Your task to perform on an android device: When is my next meeting? Image 0: 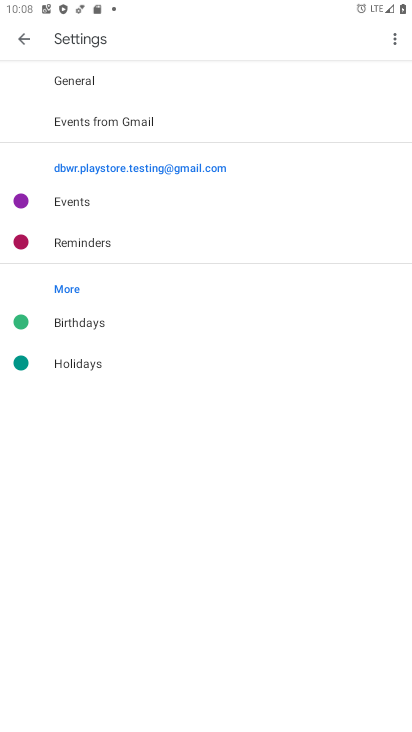
Step 0: press home button
Your task to perform on an android device: When is my next meeting? Image 1: 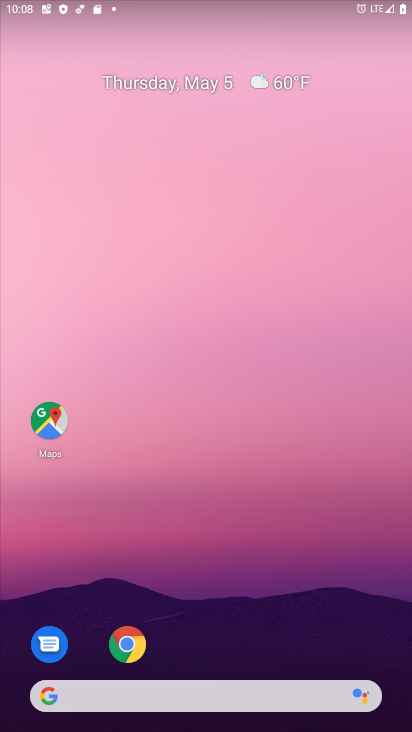
Step 1: drag from (328, 563) to (338, 72)
Your task to perform on an android device: When is my next meeting? Image 2: 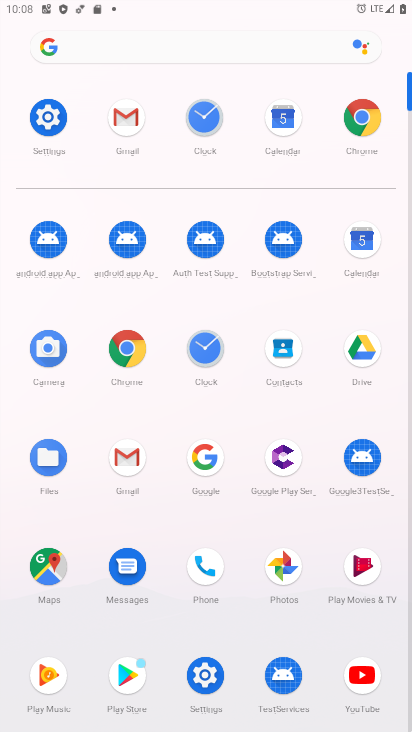
Step 2: click (364, 252)
Your task to perform on an android device: When is my next meeting? Image 3: 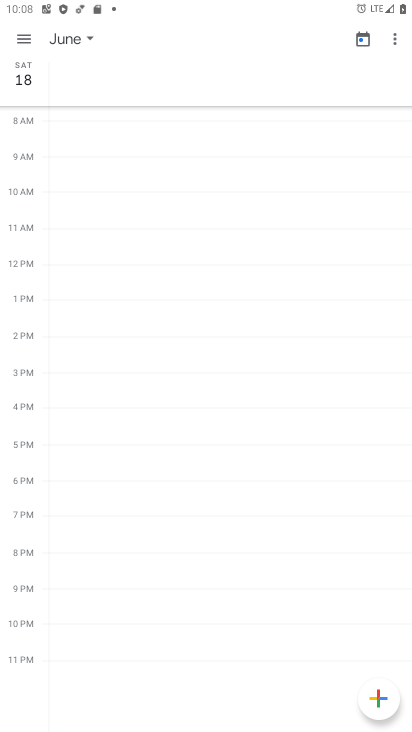
Step 3: click (58, 42)
Your task to perform on an android device: When is my next meeting? Image 4: 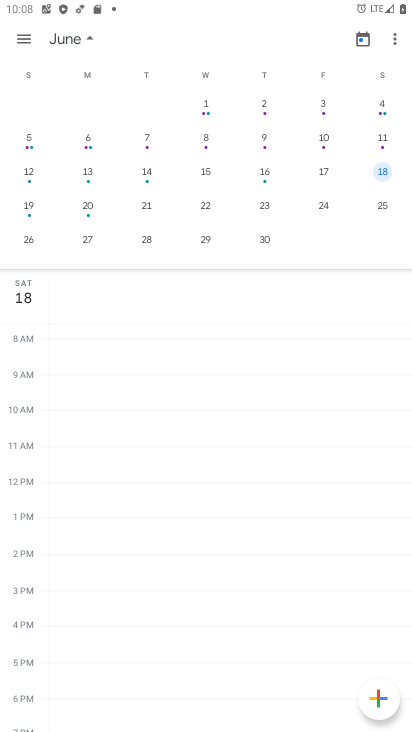
Step 4: drag from (123, 129) to (327, 123)
Your task to perform on an android device: When is my next meeting? Image 5: 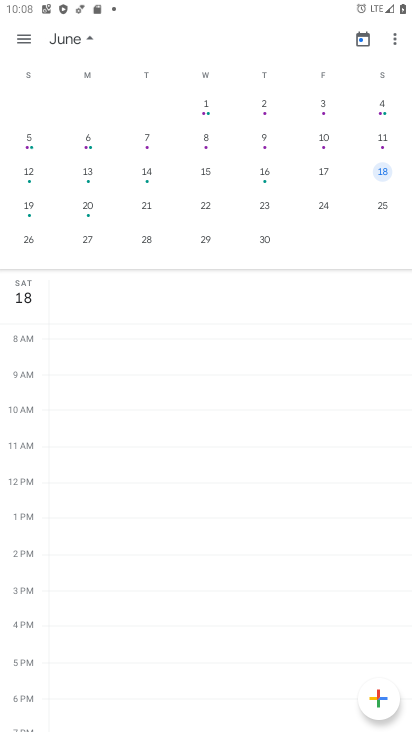
Step 5: click (25, 38)
Your task to perform on an android device: When is my next meeting? Image 6: 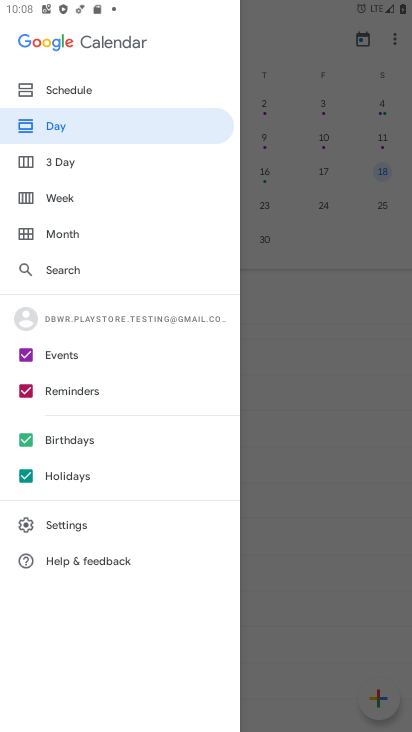
Step 6: click (123, 235)
Your task to perform on an android device: When is my next meeting? Image 7: 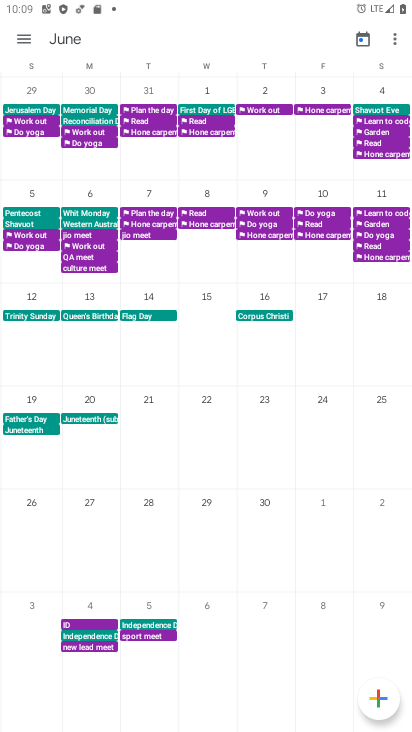
Step 7: drag from (86, 210) to (320, 221)
Your task to perform on an android device: When is my next meeting? Image 8: 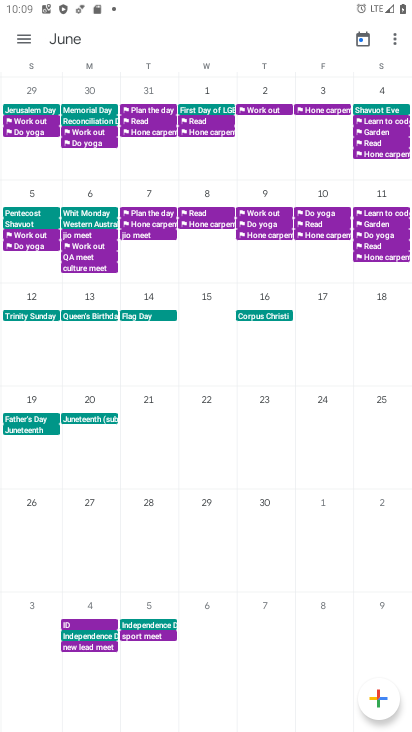
Step 8: click (27, 35)
Your task to perform on an android device: When is my next meeting? Image 9: 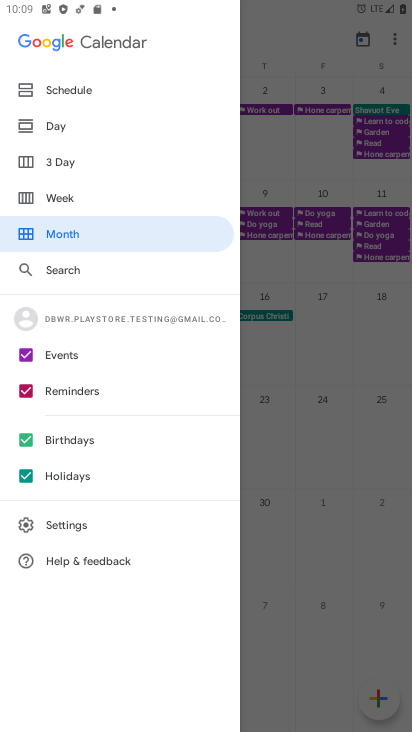
Step 9: click (87, 89)
Your task to perform on an android device: When is my next meeting? Image 10: 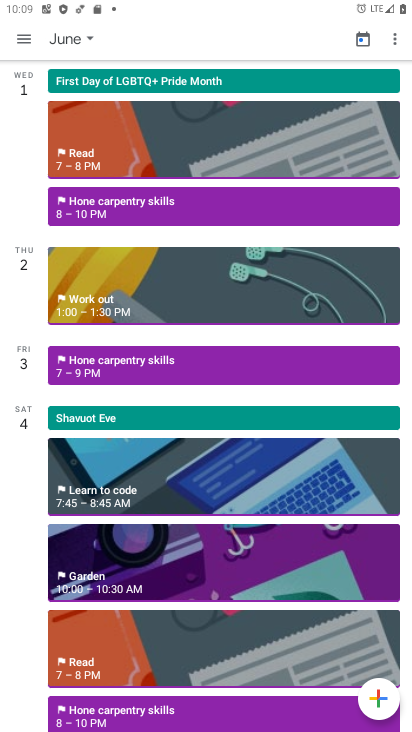
Step 10: click (79, 32)
Your task to perform on an android device: When is my next meeting? Image 11: 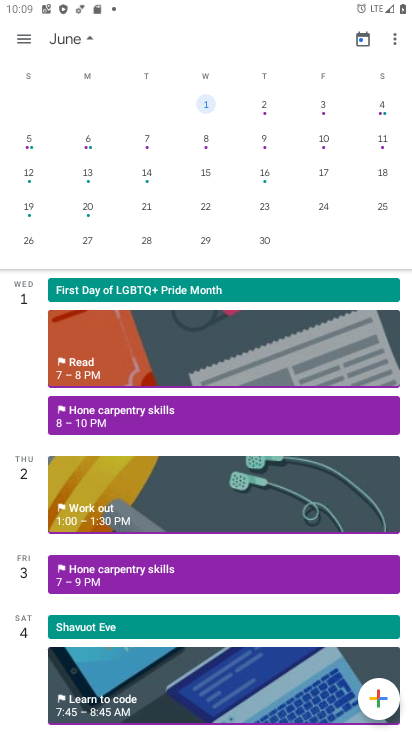
Step 11: drag from (87, 158) to (288, 161)
Your task to perform on an android device: When is my next meeting? Image 12: 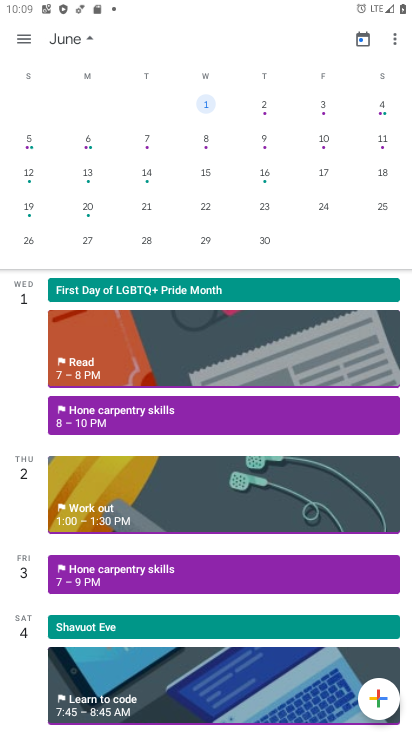
Step 12: drag from (32, 189) to (391, 230)
Your task to perform on an android device: When is my next meeting? Image 13: 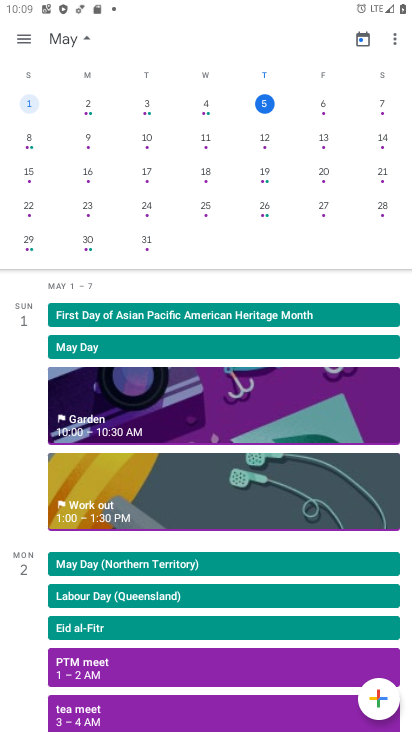
Step 13: click (315, 104)
Your task to perform on an android device: When is my next meeting? Image 14: 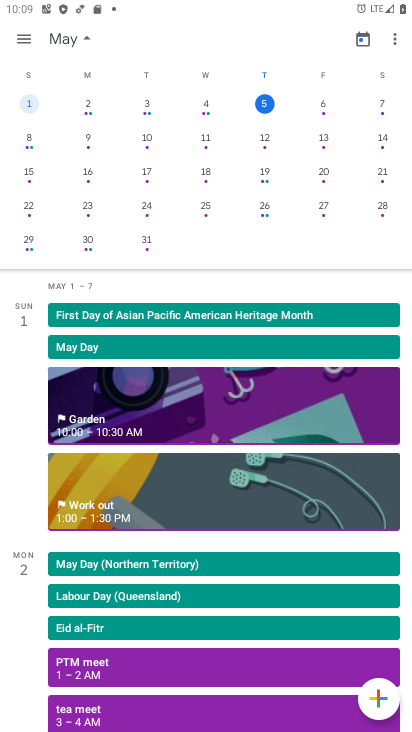
Step 14: click (330, 105)
Your task to perform on an android device: When is my next meeting? Image 15: 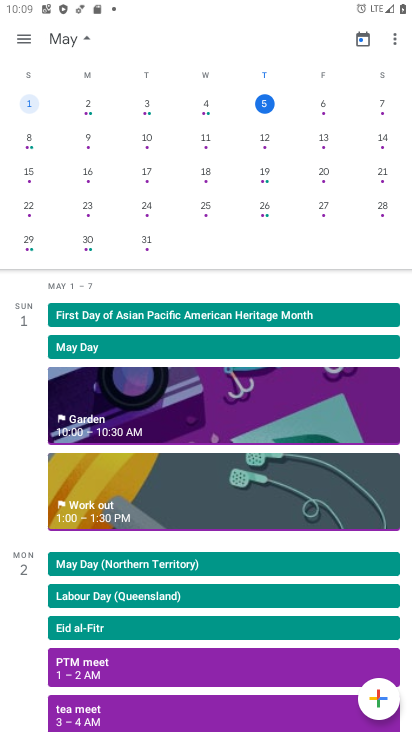
Step 15: click (324, 111)
Your task to perform on an android device: When is my next meeting? Image 16: 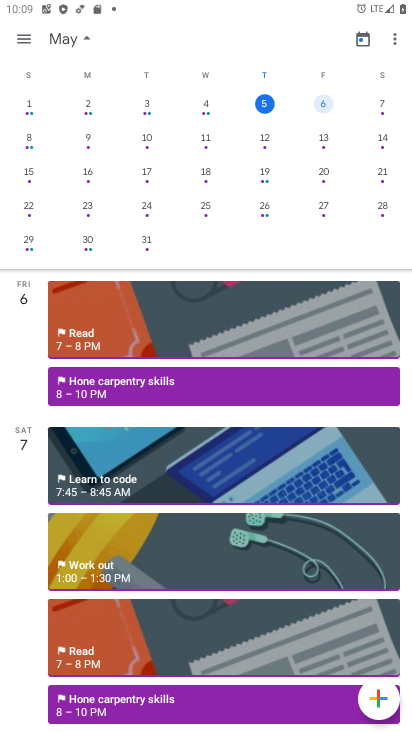
Step 16: click (388, 102)
Your task to perform on an android device: When is my next meeting? Image 17: 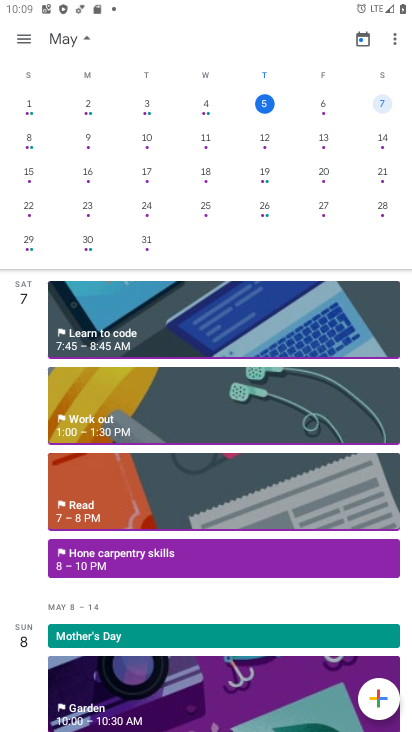
Step 17: click (37, 147)
Your task to perform on an android device: When is my next meeting? Image 18: 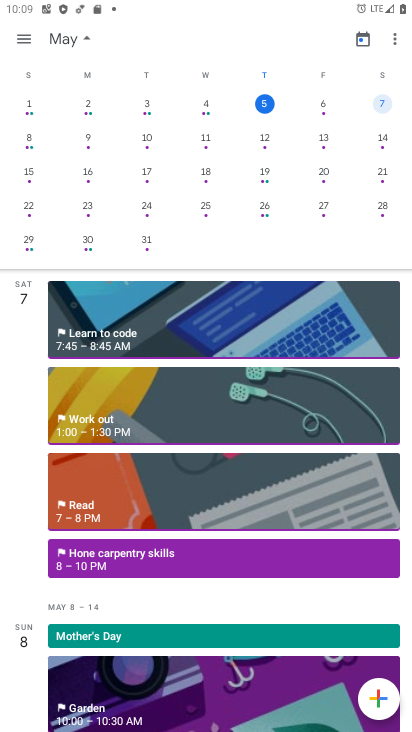
Step 18: click (94, 143)
Your task to perform on an android device: When is my next meeting? Image 19: 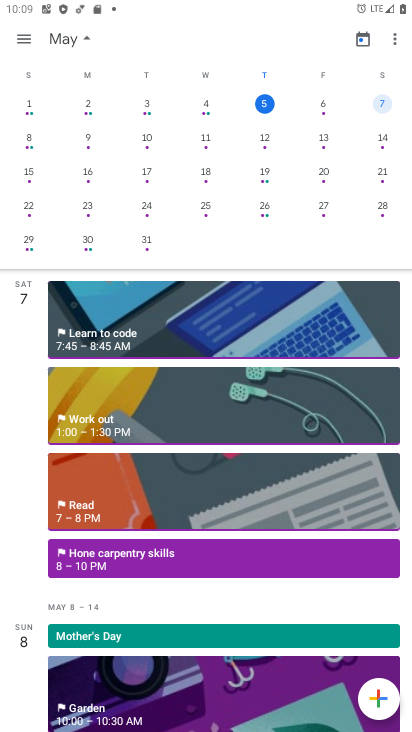
Step 19: click (146, 149)
Your task to perform on an android device: When is my next meeting? Image 20: 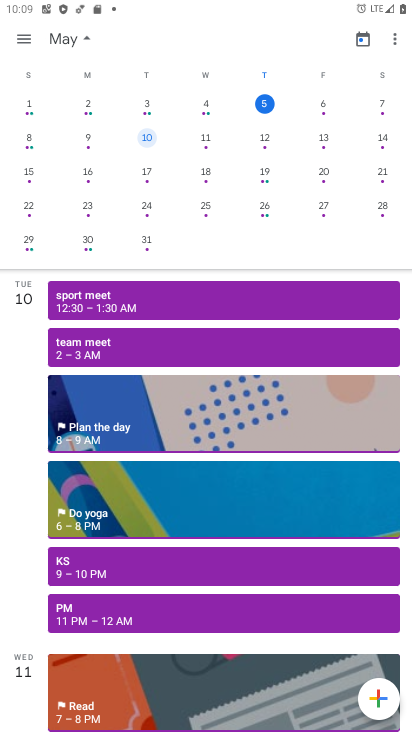
Step 20: click (200, 145)
Your task to perform on an android device: When is my next meeting? Image 21: 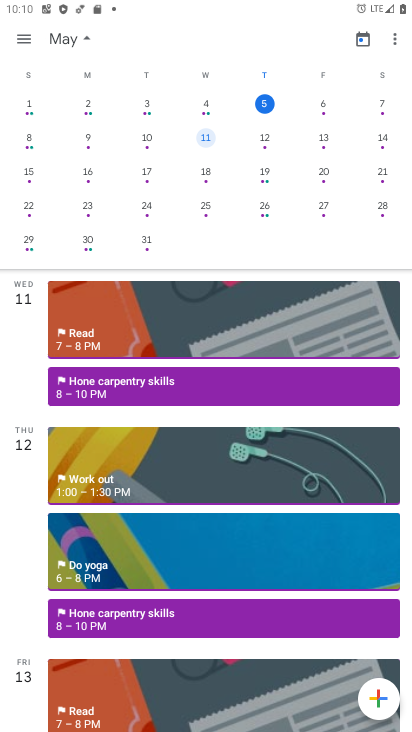
Step 21: task complete